Your task to perform on an android device: turn off improve location accuracy Image 0: 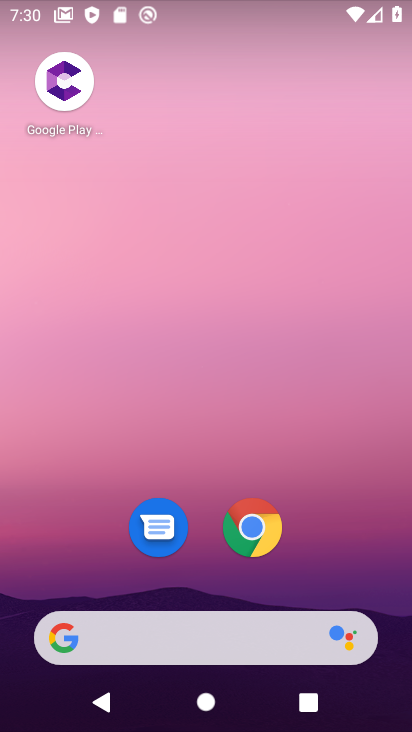
Step 0: drag from (353, 568) to (312, 172)
Your task to perform on an android device: turn off improve location accuracy Image 1: 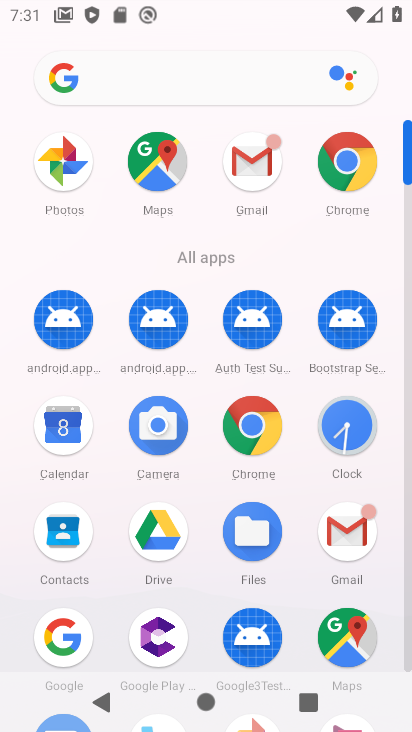
Step 1: drag from (401, 532) to (392, 253)
Your task to perform on an android device: turn off improve location accuracy Image 2: 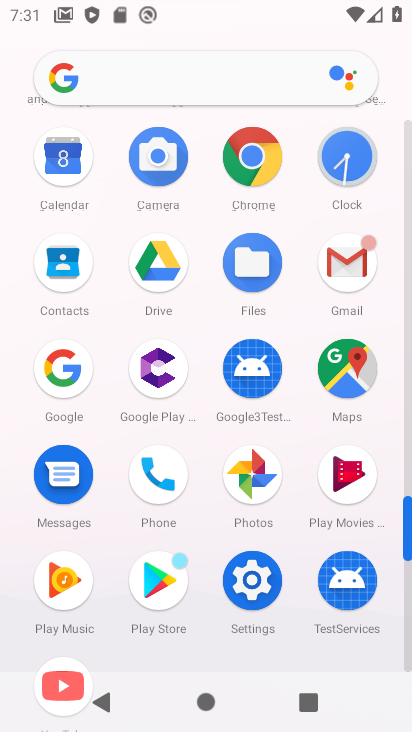
Step 2: click (251, 601)
Your task to perform on an android device: turn off improve location accuracy Image 3: 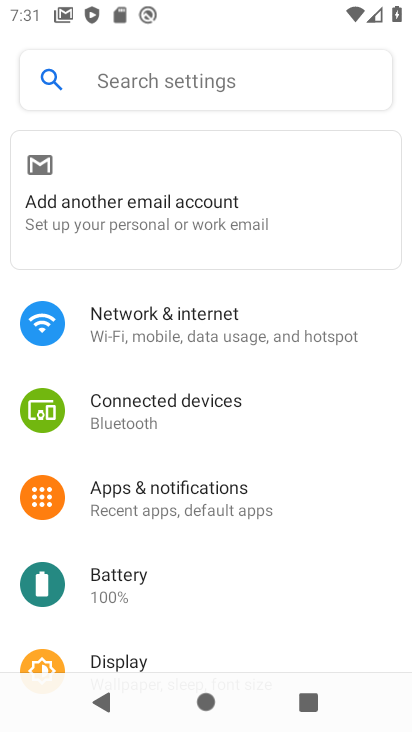
Step 3: drag from (251, 601) to (301, 232)
Your task to perform on an android device: turn off improve location accuracy Image 4: 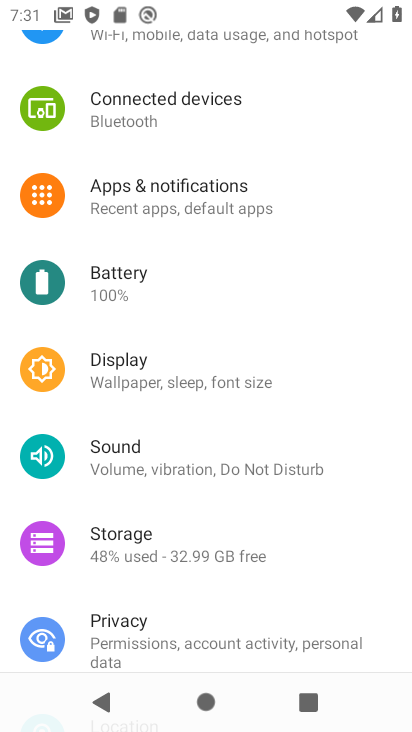
Step 4: drag from (239, 547) to (333, 205)
Your task to perform on an android device: turn off improve location accuracy Image 5: 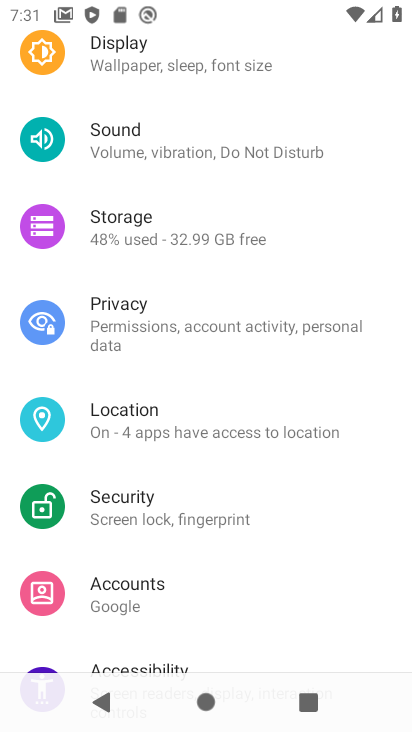
Step 5: click (160, 435)
Your task to perform on an android device: turn off improve location accuracy Image 6: 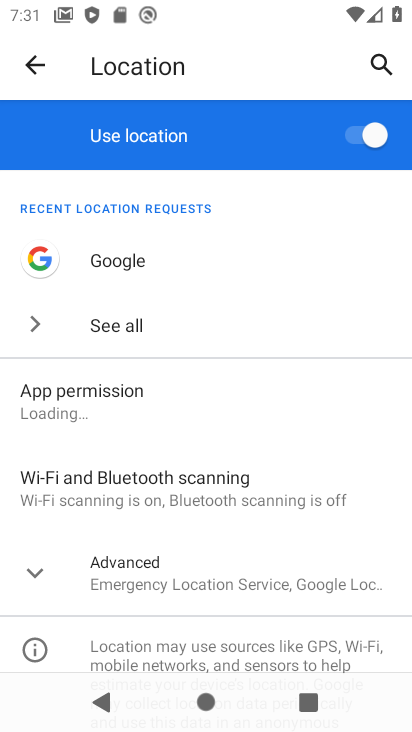
Step 6: drag from (234, 569) to (323, 230)
Your task to perform on an android device: turn off improve location accuracy Image 7: 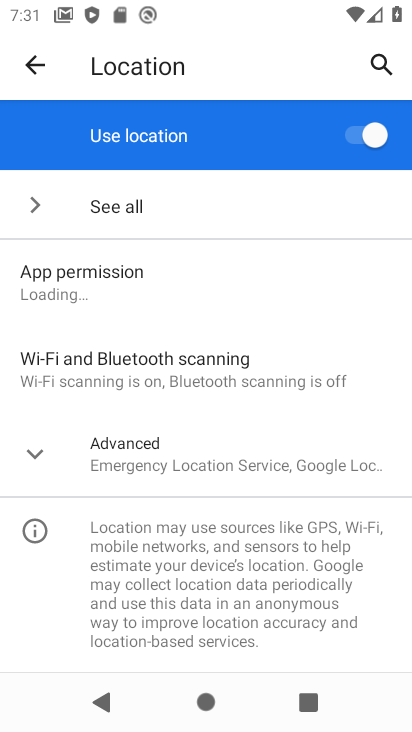
Step 7: click (111, 453)
Your task to perform on an android device: turn off improve location accuracy Image 8: 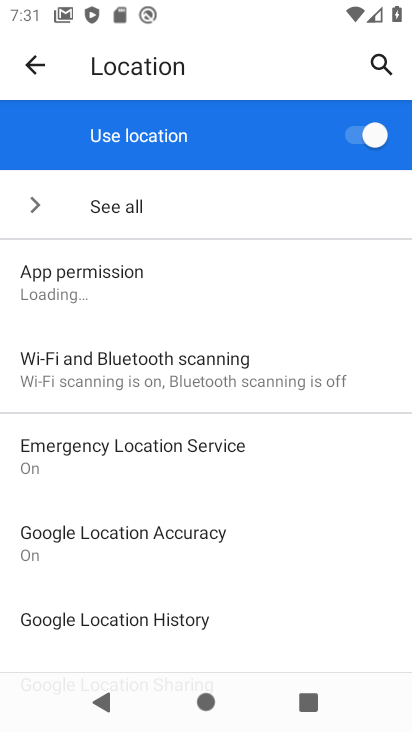
Step 8: drag from (215, 588) to (291, 378)
Your task to perform on an android device: turn off improve location accuracy Image 9: 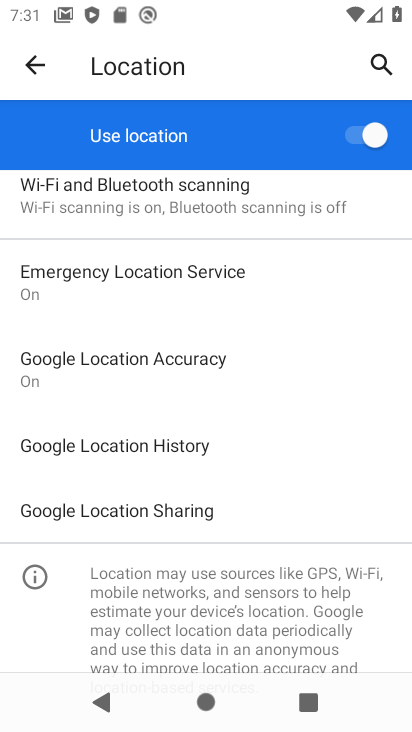
Step 9: drag from (283, 595) to (277, 292)
Your task to perform on an android device: turn off improve location accuracy Image 10: 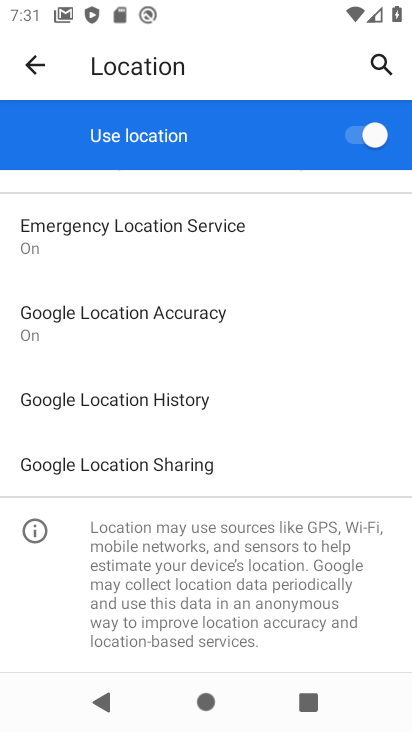
Step 10: drag from (264, 580) to (315, 307)
Your task to perform on an android device: turn off improve location accuracy Image 11: 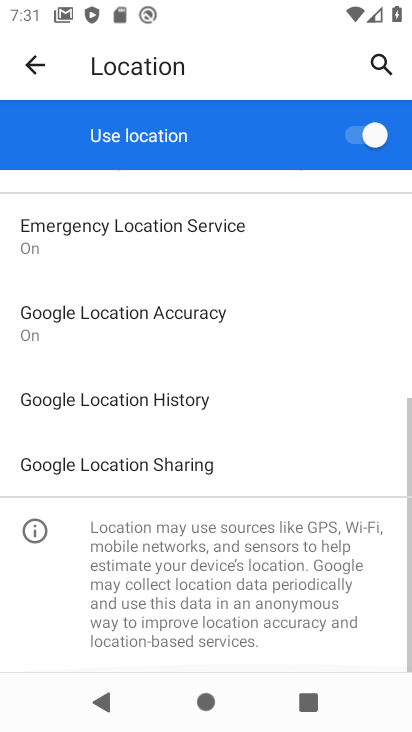
Step 11: drag from (293, 454) to (302, 605)
Your task to perform on an android device: turn off improve location accuracy Image 12: 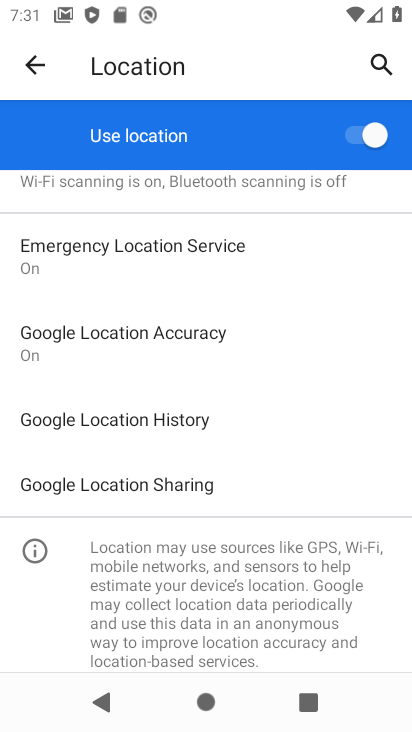
Step 12: click (175, 359)
Your task to perform on an android device: turn off improve location accuracy Image 13: 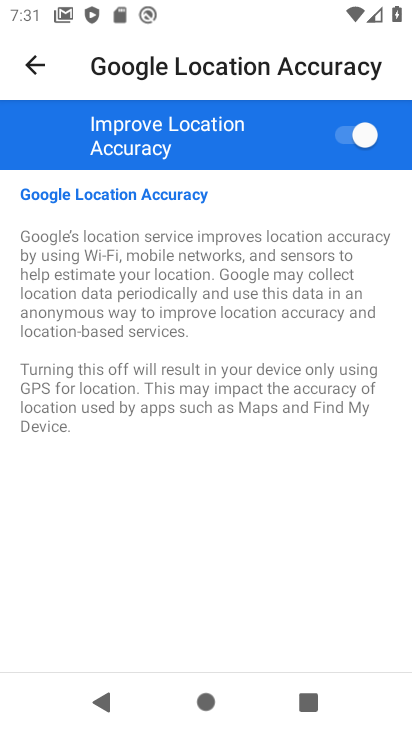
Step 13: click (345, 139)
Your task to perform on an android device: turn off improve location accuracy Image 14: 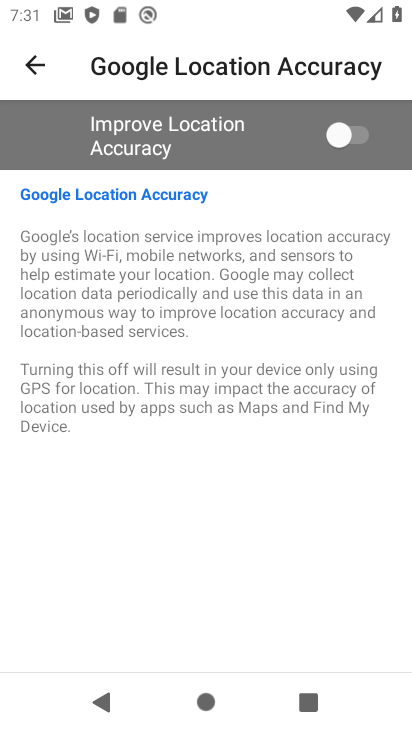
Step 14: task complete